Your task to perform on an android device: Go to network settings Image 0: 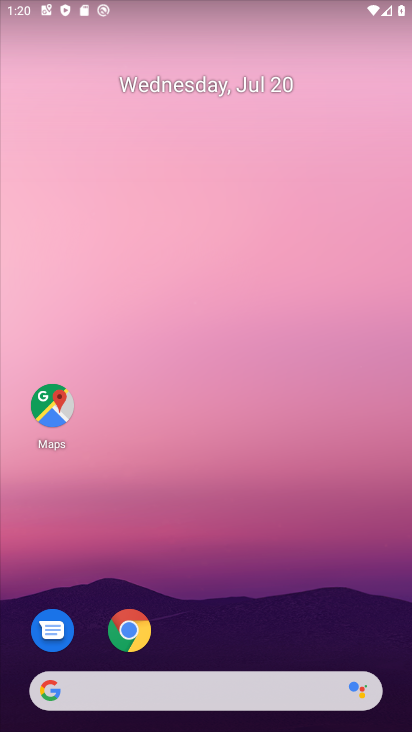
Step 0: drag from (217, 446) to (185, 154)
Your task to perform on an android device: Go to network settings Image 1: 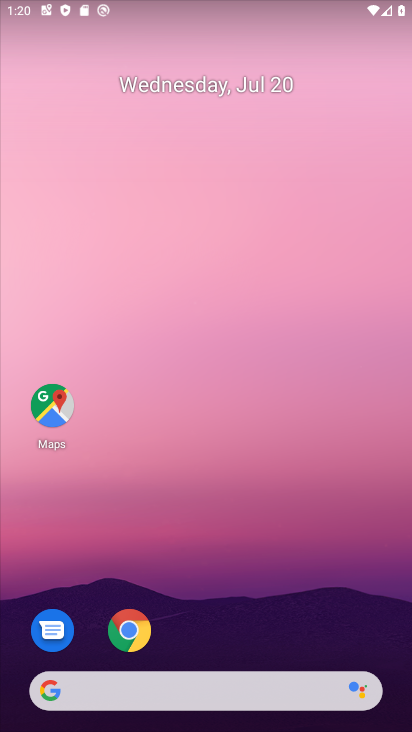
Step 1: drag from (334, 555) to (276, 20)
Your task to perform on an android device: Go to network settings Image 2: 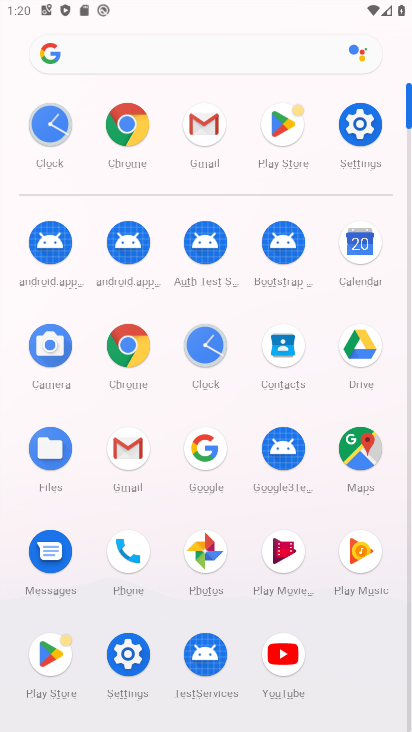
Step 2: click (369, 120)
Your task to perform on an android device: Go to network settings Image 3: 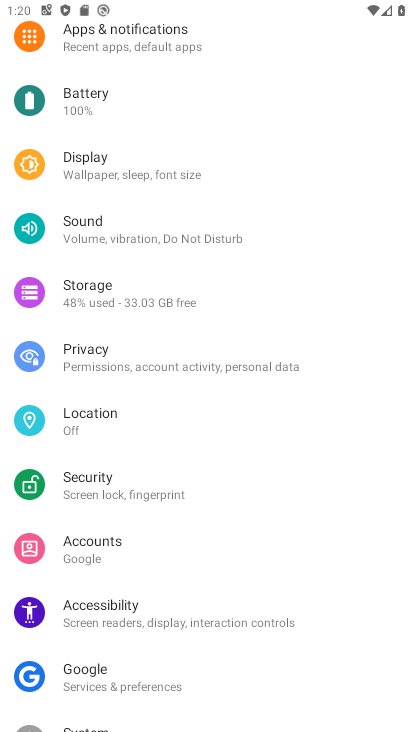
Step 3: drag from (193, 121) to (149, 515)
Your task to perform on an android device: Go to network settings Image 4: 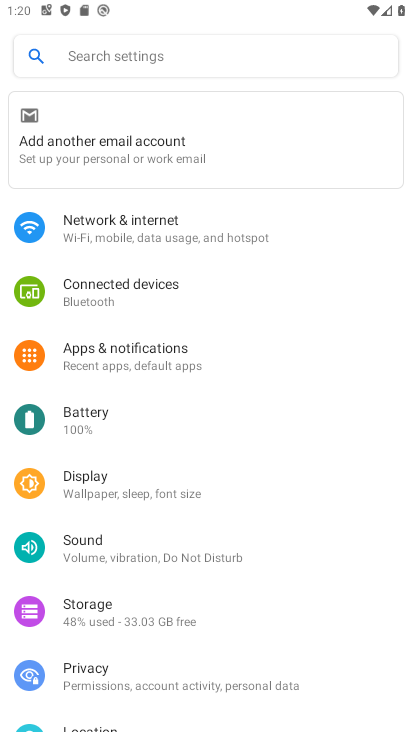
Step 4: click (138, 224)
Your task to perform on an android device: Go to network settings Image 5: 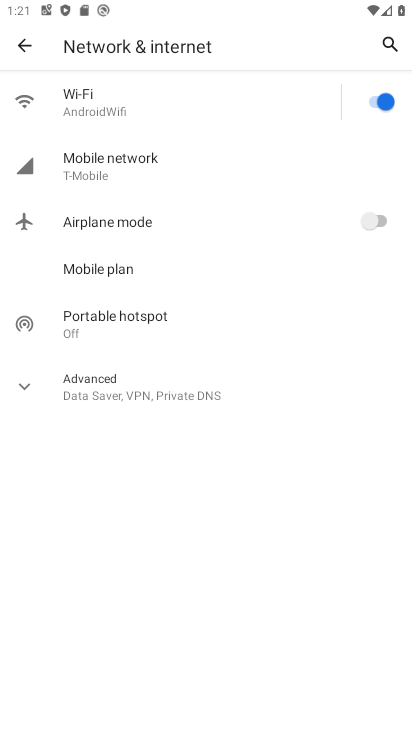
Step 5: task complete